Your task to perform on an android device: create a new album in the google photos Image 0: 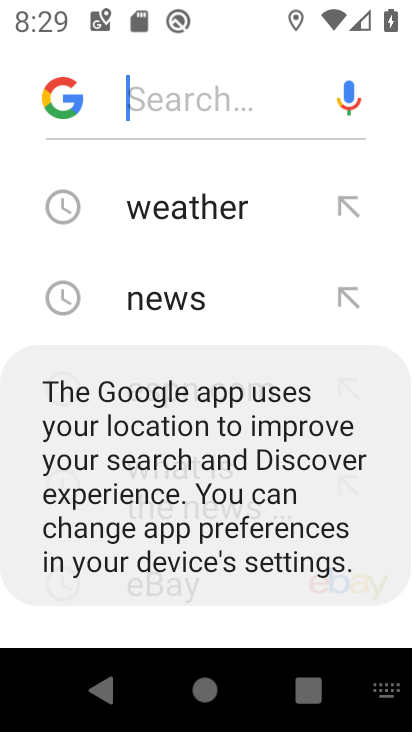
Step 0: press home button
Your task to perform on an android device: create a new album in the google photos Image 1: 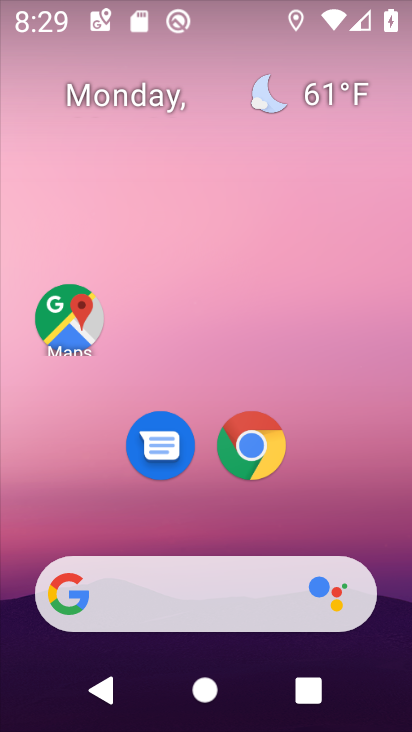
Step 1: drag from (203, 542) to (202, 9)
Your task to perform on an android device: create a new album in the google photos Image 2: 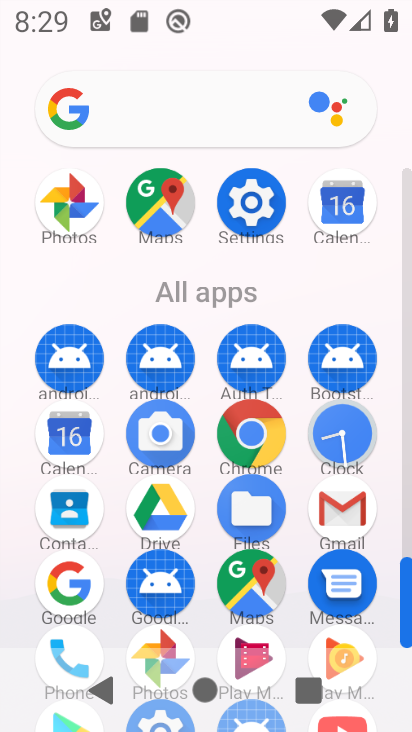
Step 2: drag from (200, 391) to (236, 18)
Your task to perform on an android device: create a new album in the google photos Image 3: 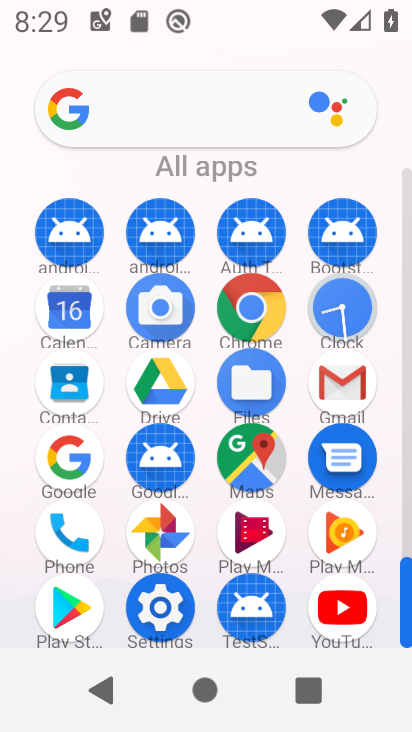
Step 3: click (161, 524)
Your task to perform on an android device: create a new album in the google photos Image 4: 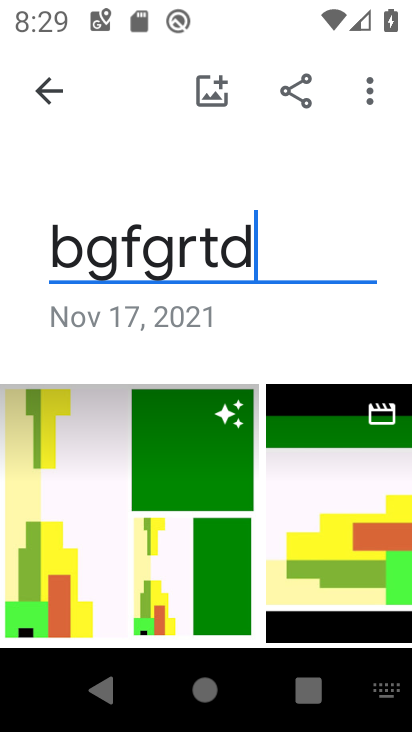
Step 4: click (331, 159)
Your task to perform on an android device: create a new album in the google photos Image 5: 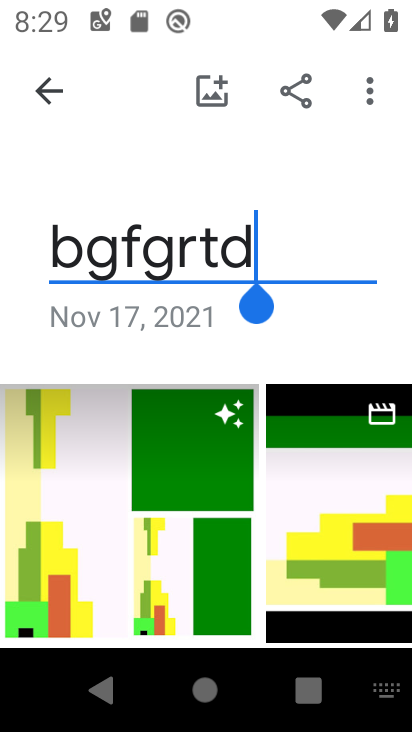
Step 5: click (122, 190)
Your task to perform on an android device: create a new album in the google photos Image 6: 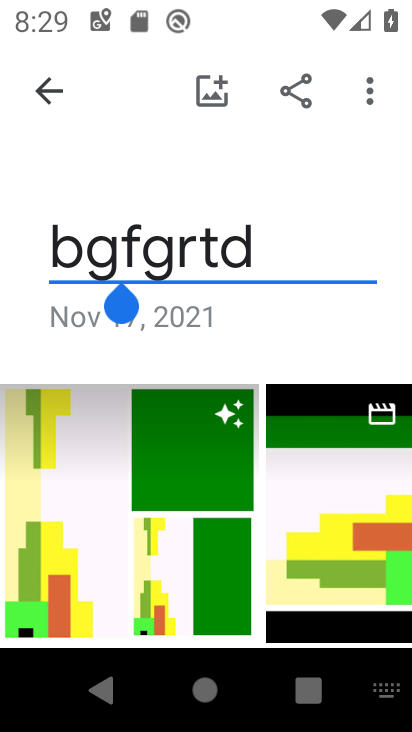
Step 6: click (122, 81)
Your task to perform on an android device: create a new album in the google photos Image 7: 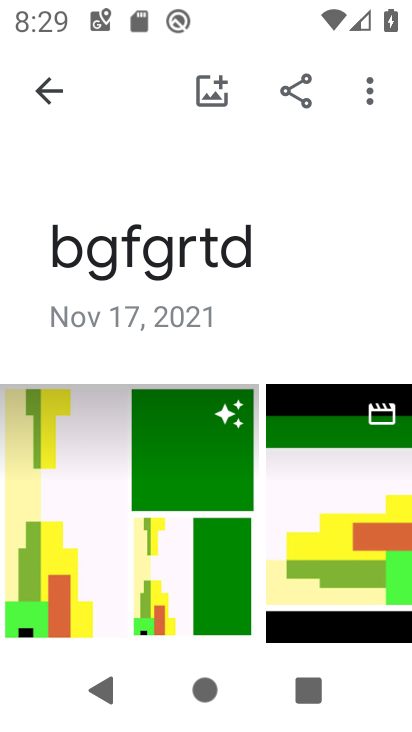
Step 7: drag from (187, 596) to (224, 195)
Your task to perform on an android device: create a new album in the google photos Image 8: 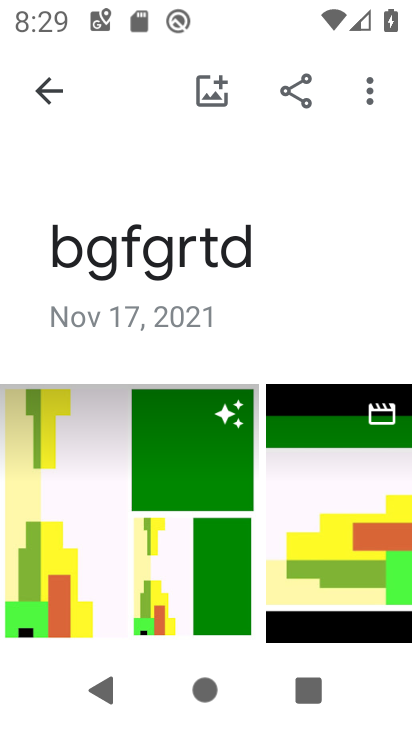
Step 8: click (218, 502)
Your task to perform on an android device: create a new album in the google photos Image 9: 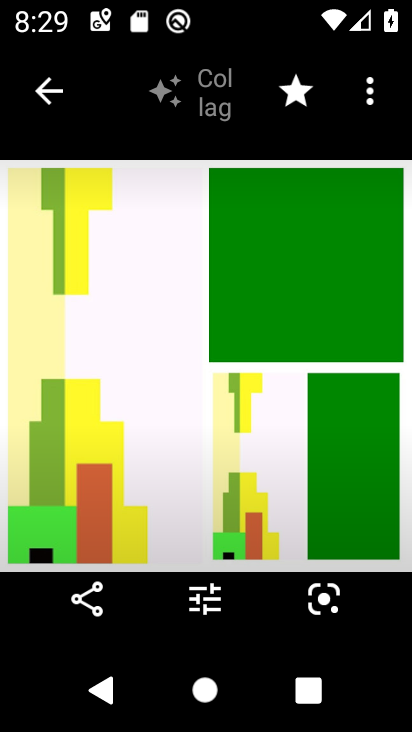
Step 9: click (53, 97)
Your task to perform on an android device: create a new album in the google photos Image 10: 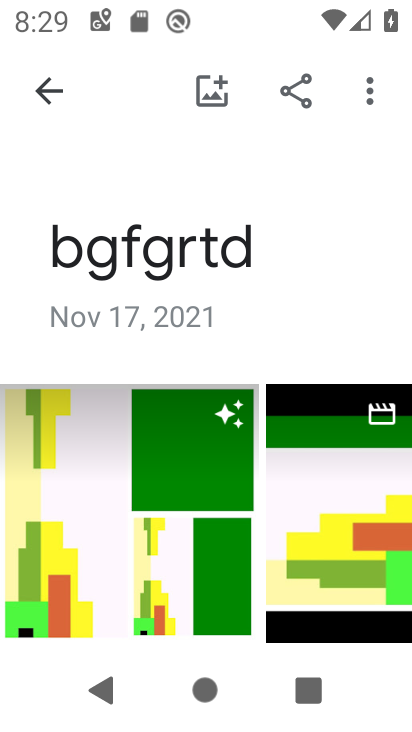
Step 10: task complete